Your task to perform on an android device: change the clock display to analog Image 0: 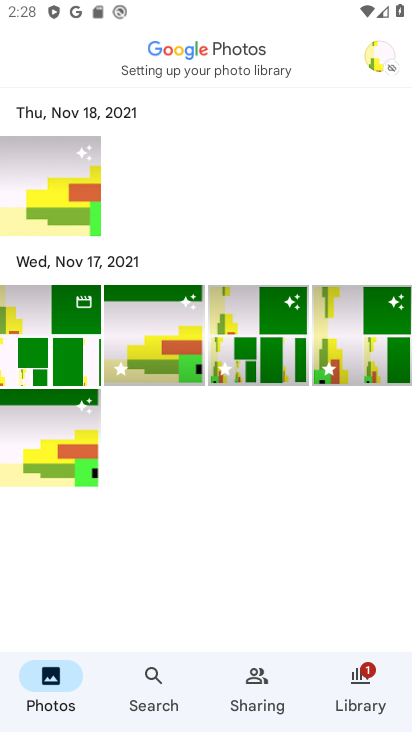
Step 0: press home button
Your task to perform on an android device: change the clock display to analog Image 1: 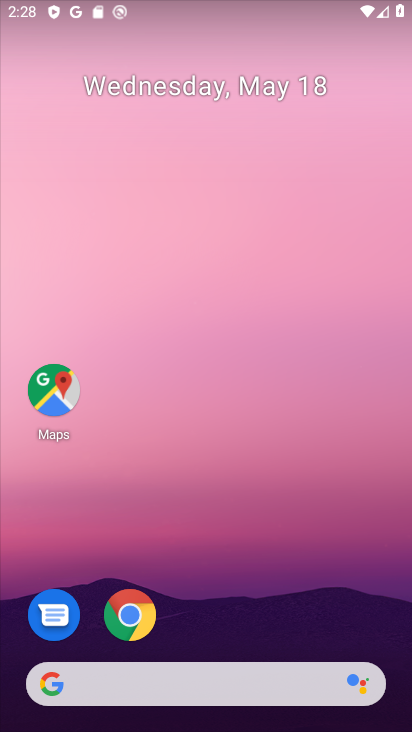
Step 1: drag from (193, 652) to (195, 327)
Your task to perform on an android device: change the clock display to analog Image 2: 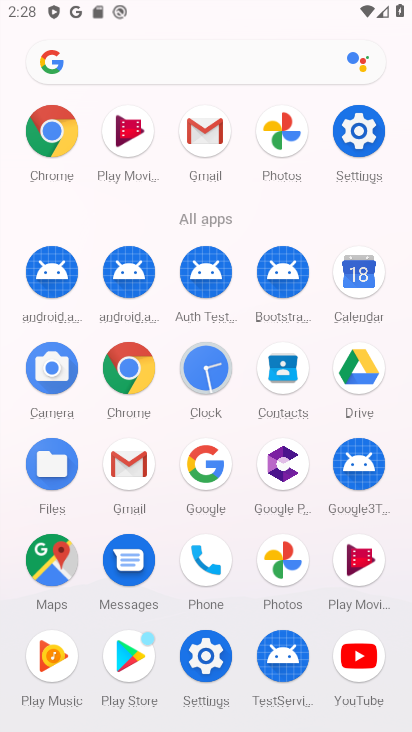
Step 2: click (200, 370)
Your task to perform on an android device: change the clock display to analog Image 3: 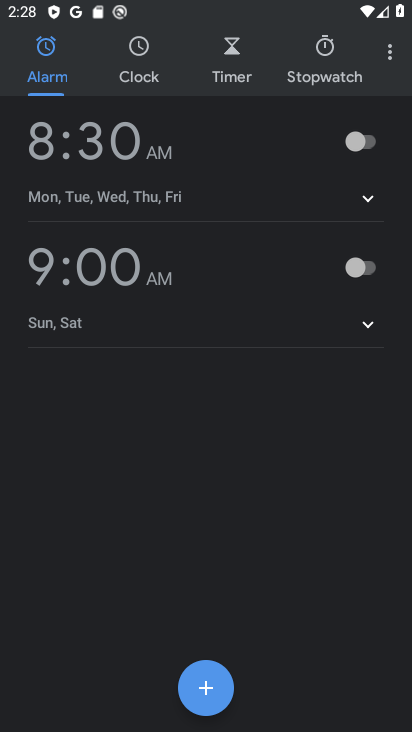
Step 3: click (391, 51)
Your task to perform on an android device: change the clock display to analog Image 4: 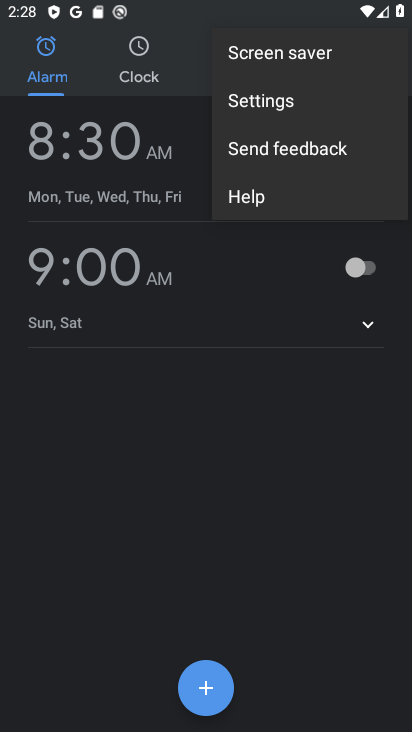
Step 4: click (308, 111)
Your task to perform on an android device: change the clock display to analog Image 5: 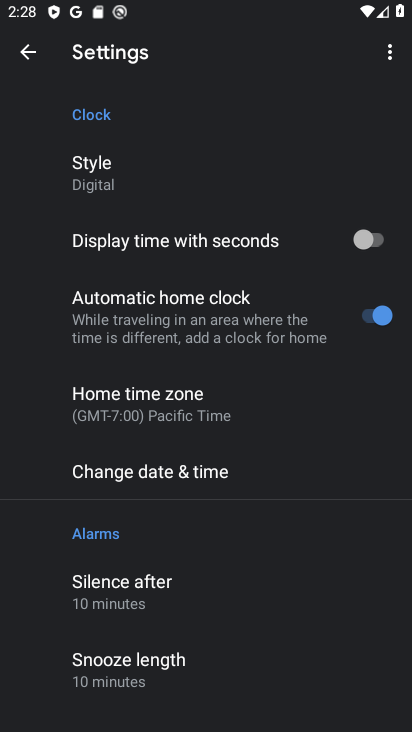
Step 5: click (123, 180)
Your task to perform on an android device: change the clock display to analog Image 6: 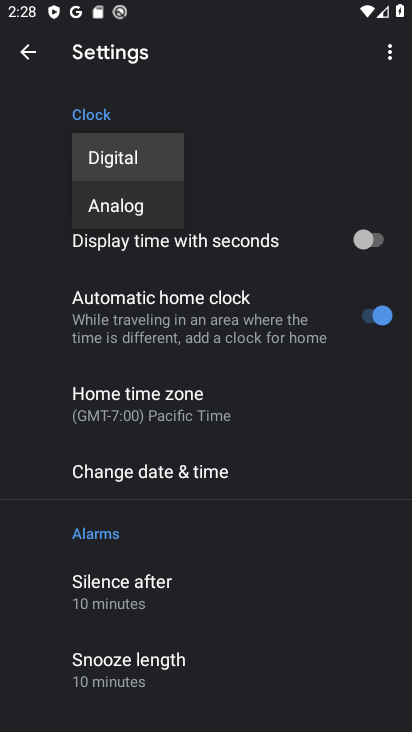
Step 6: click (145, 206)
Your task to perform on an android device: change the clock display to analog Image 7: 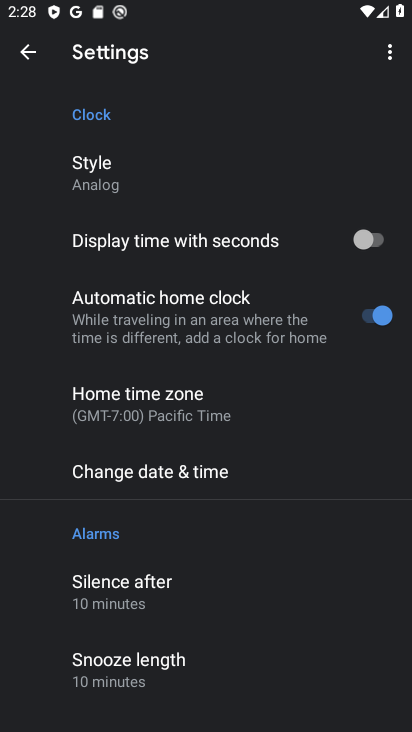
Step 7: task complete